Your task to perform on an android device: uninstall "eBay: The shopping marketplace" Image 0: 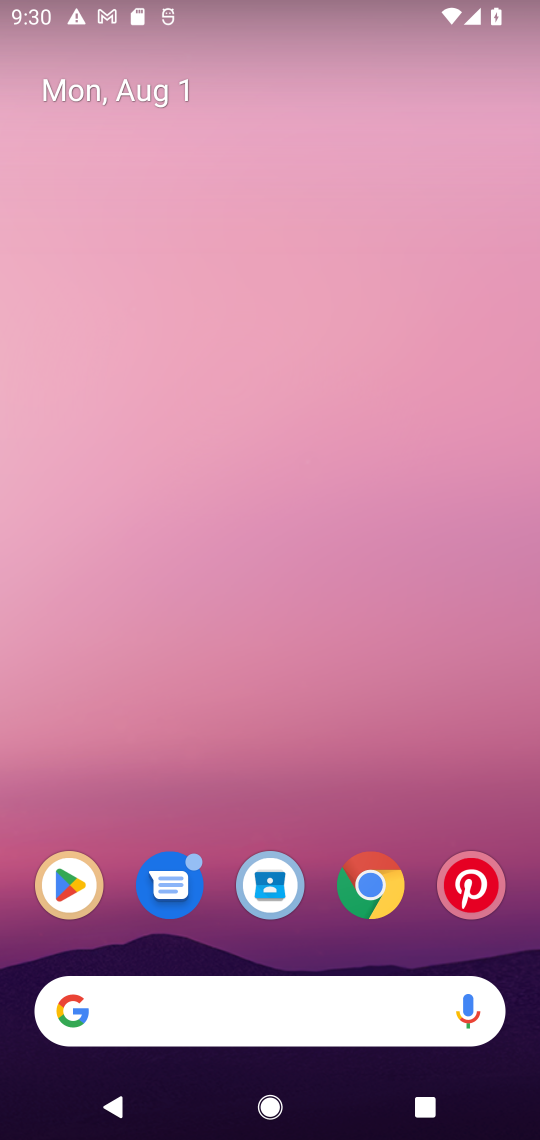
Step 0: drag from (303, 1121) to (288, 275)
Your task to perform on an android device: uninstall "eBay: The shopping marketplace" Image 1: 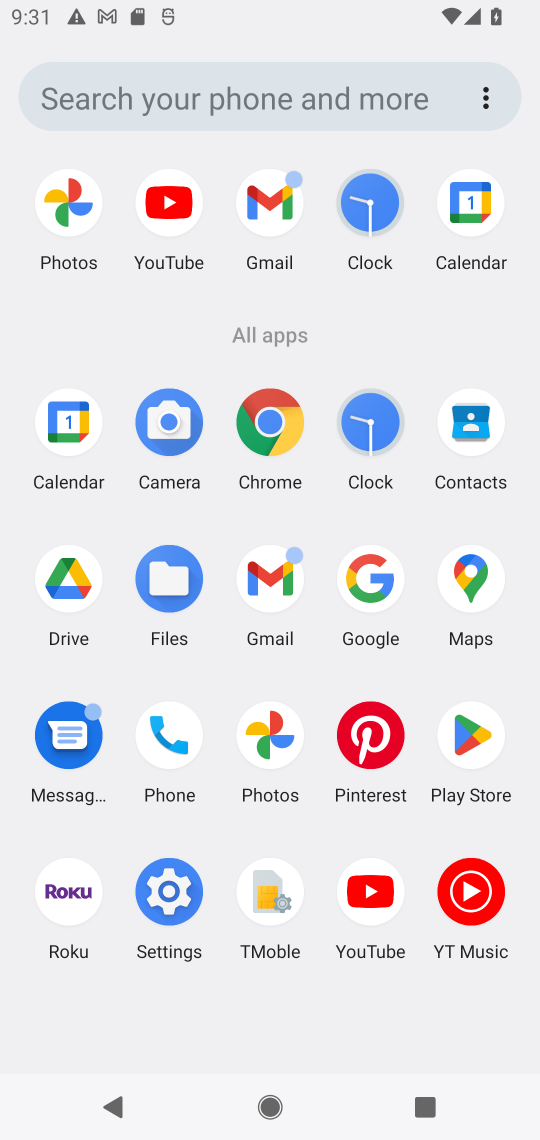
Step 1: click (480, 732)
Your task to perform on an android device: uninstall "eBay: The shopping marketplace" Image 2: 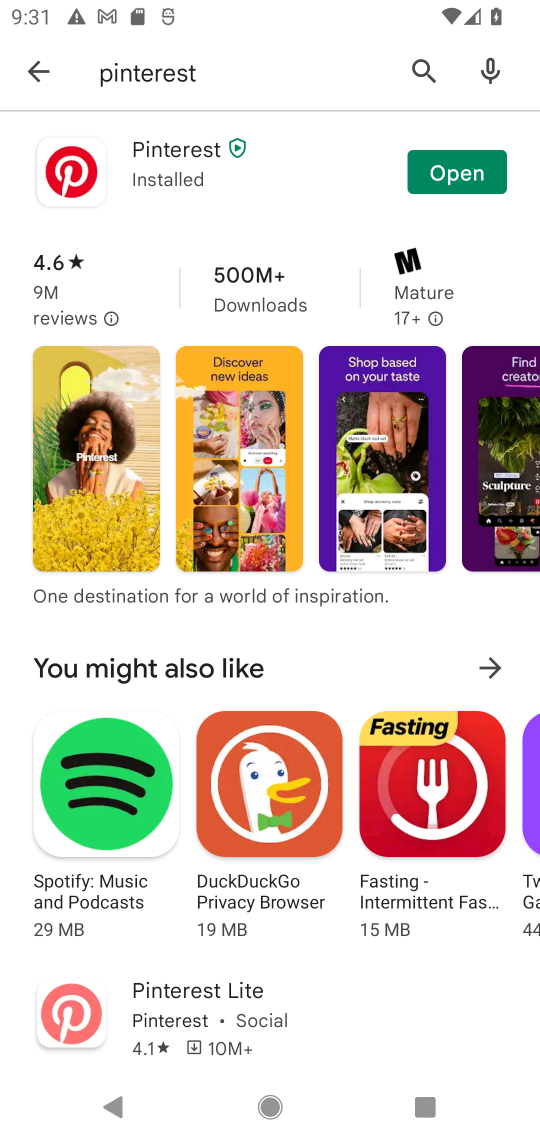
Step 2: click (421, 65)
Your task to perform on an android device: uninstall "eBay: The shopping marketplace" Image 3: 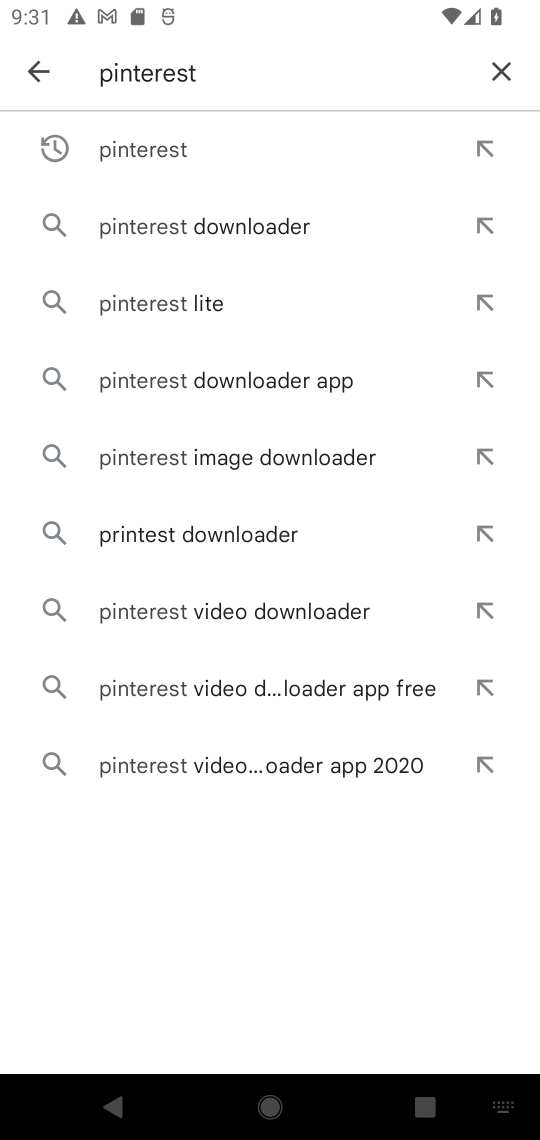
Step 3: click (503, 71)
Your task to perform on an android device: uninstall "eBay: The shopping marketplace" Image 4: 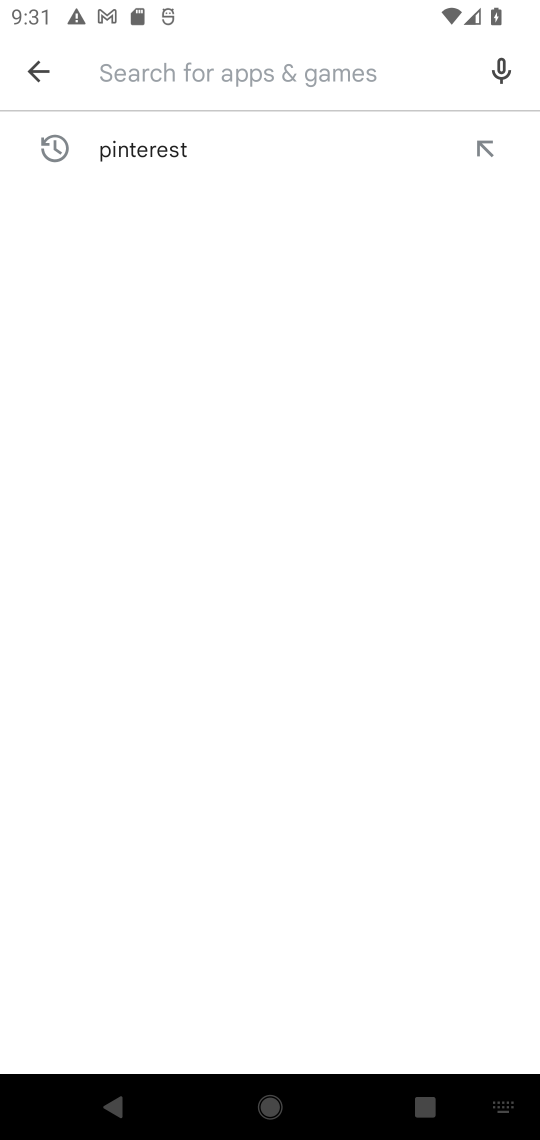
Step 4: type "eBay: The shopping marketplace"
Your task to perform on an android device: uninstall "eBay: The shopping marketplace" Image 5: 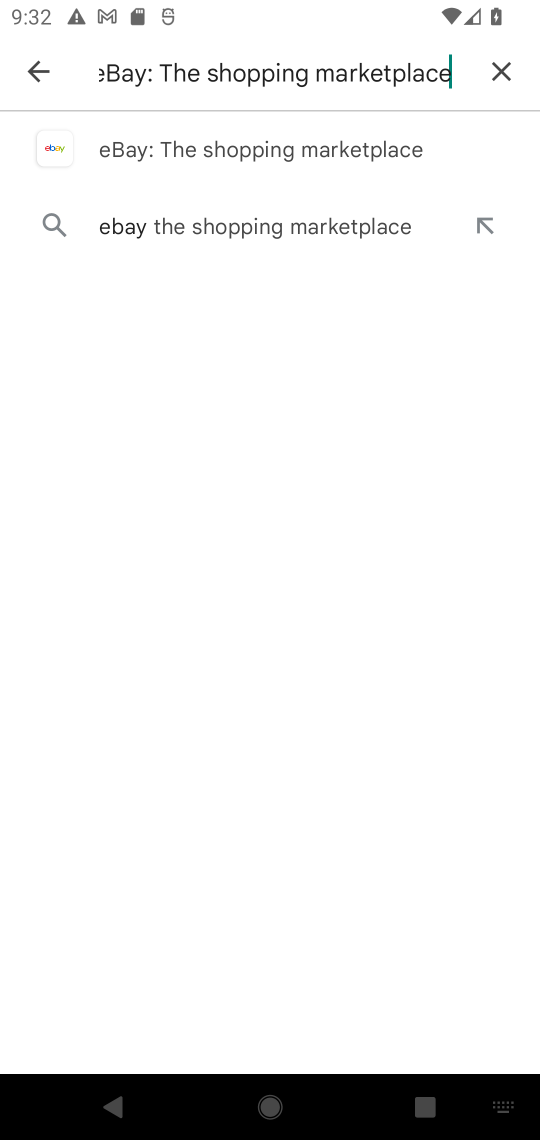
Step 5: click (257, 139)
Your task to perform on an android device: uninstall "eBay: The shopping marketplace" Image 6: 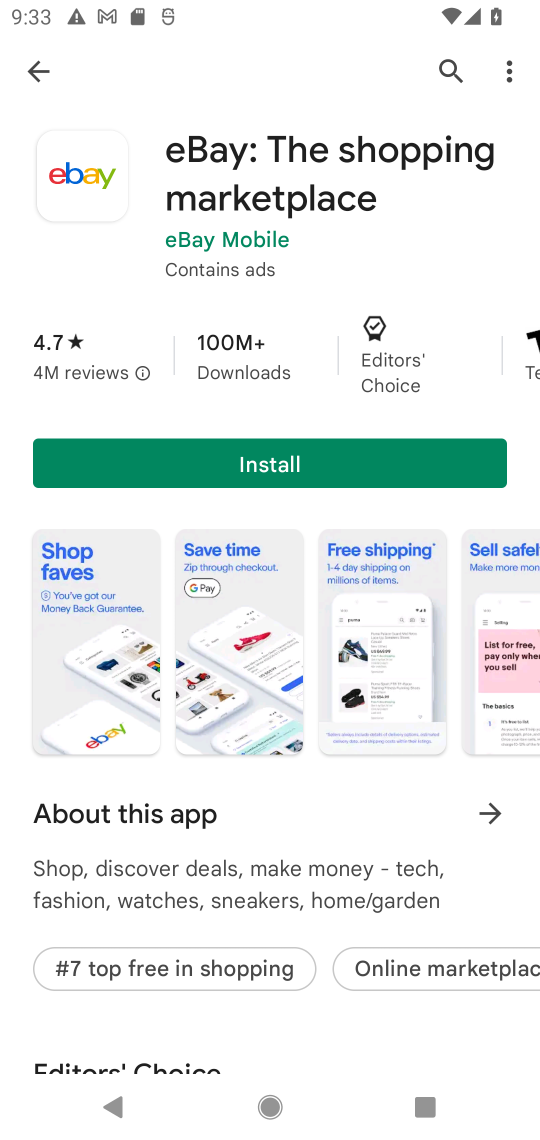
Step 6: task complete